Your task to perform on an android device: Search for asus zenbook on target, select the first entry, and add it to the cart. Image 0: 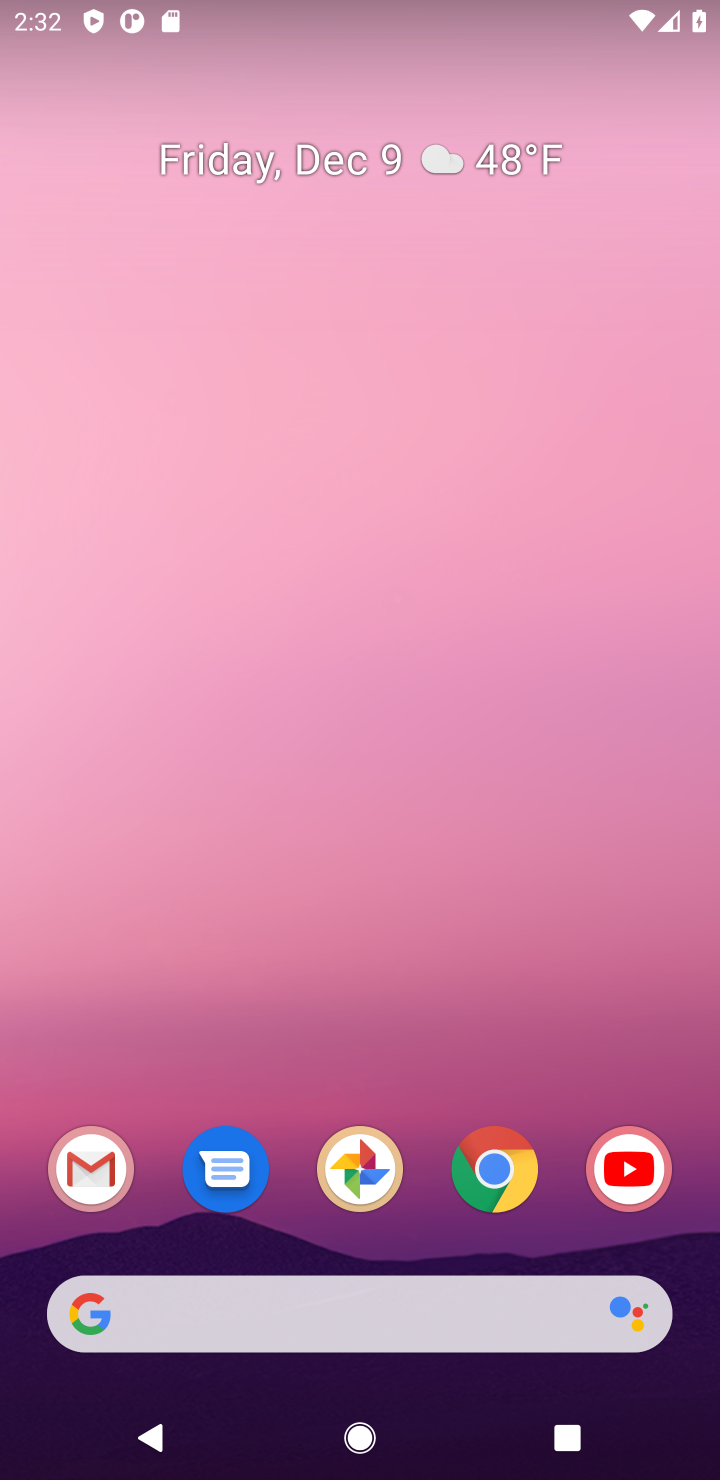
Step 0: click (496, 1176)
Your task to perform on an android device: Search for asus zenbook on target, select the first entry, and add it to the cart. Image 1: 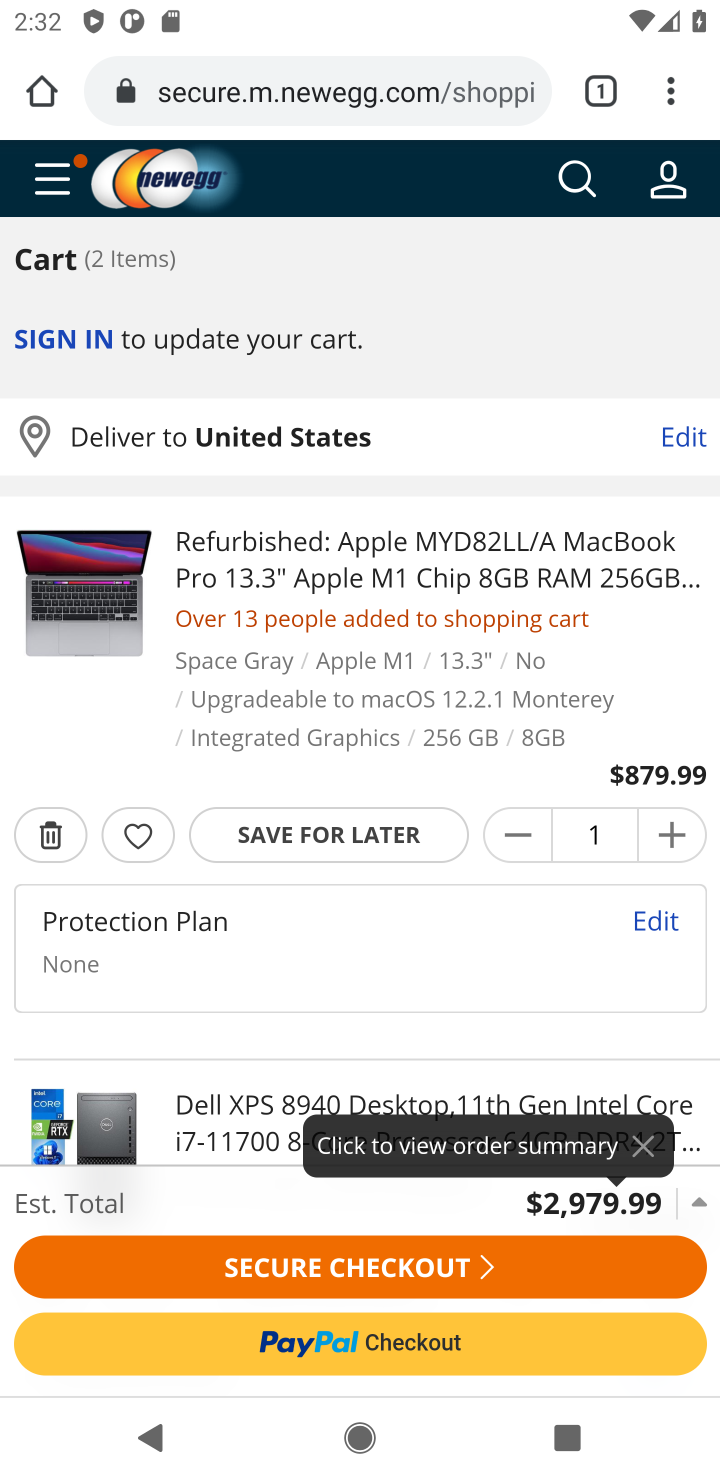
Step 1: click (44, 86)
Your task to perform on an android device: Search for asus zenbook on target, select the first entry, and add it to the cart. Image 2: 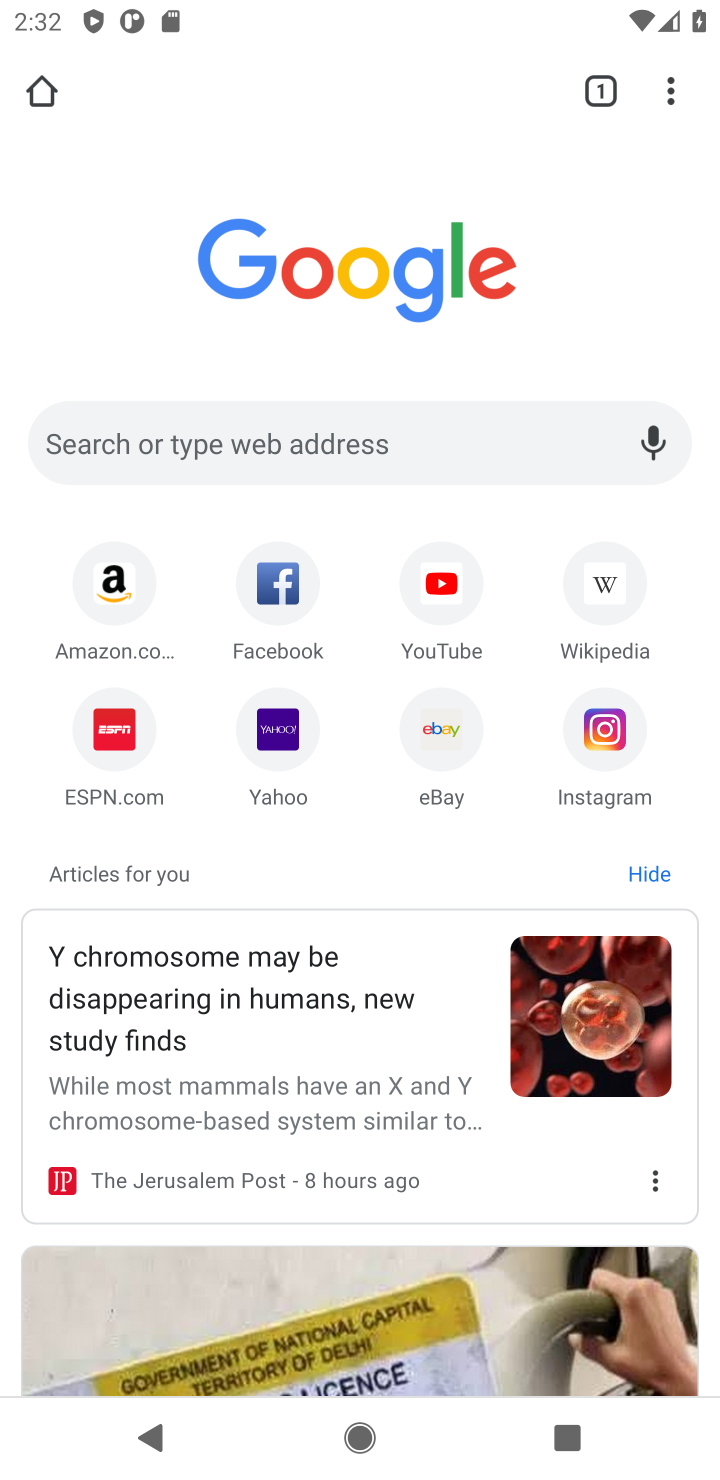
Step 2: click (531, 429)
Your task to perform on an android device: Search for asus zenbook on target, select the first entry, and add it to the cart. Image 3: 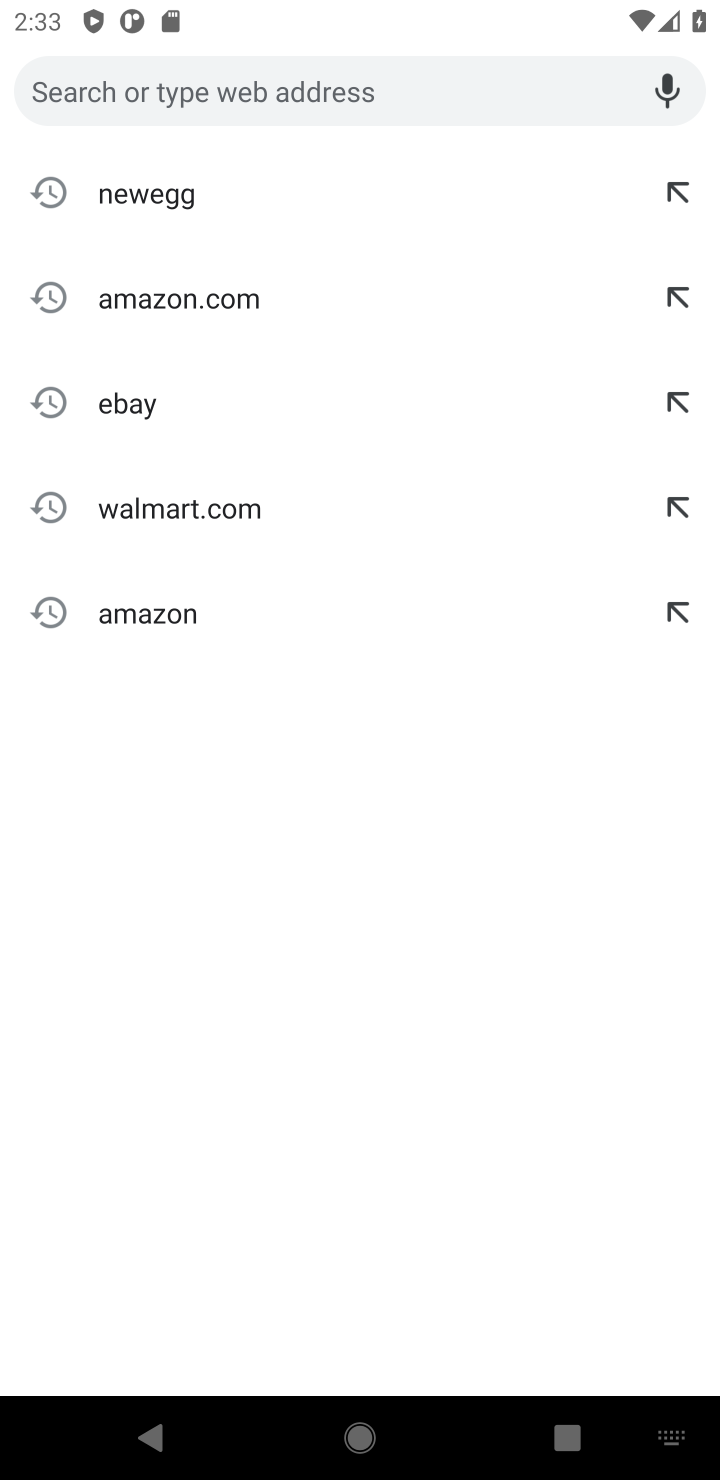
Step 3: press enter
Your task to perform on an android device: Search for asus zenbook on target, select the first entry, and add it to the cart. Image 4: 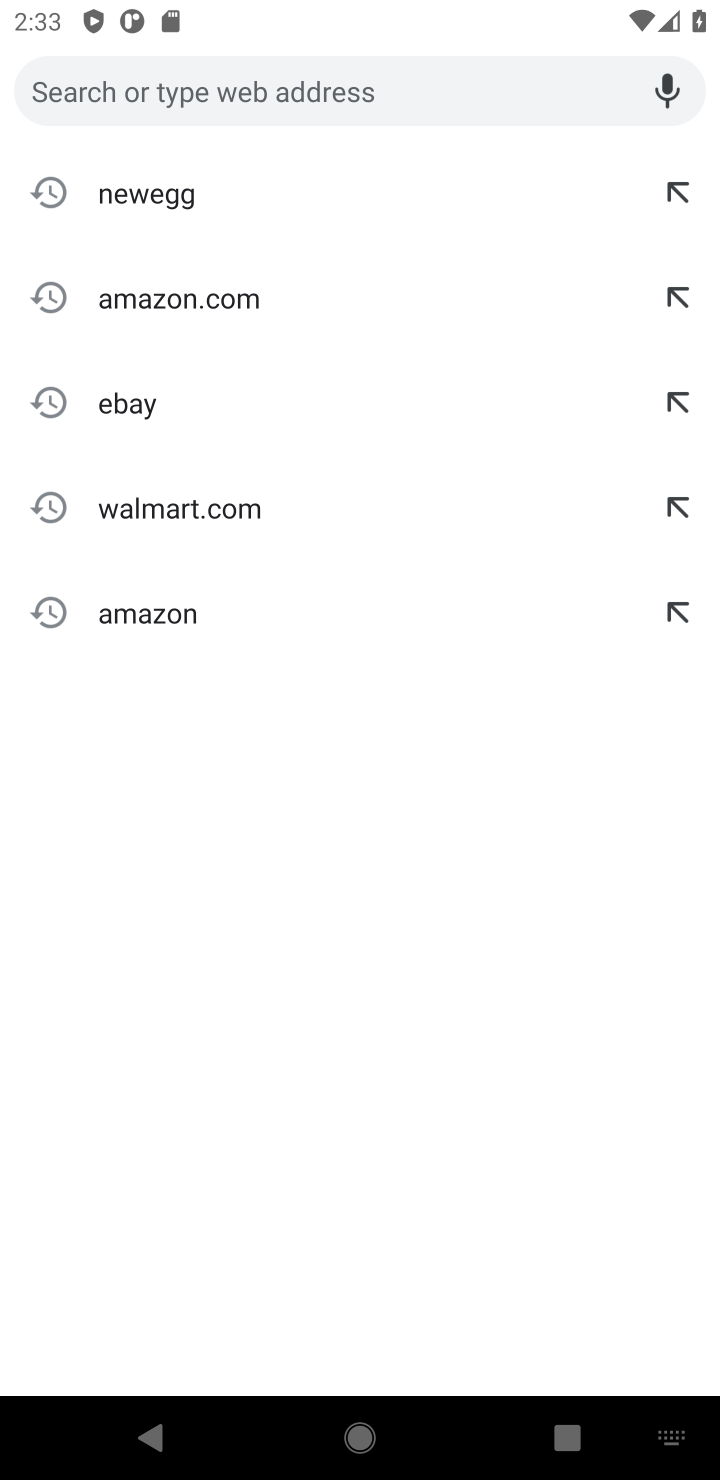
Step 4: type "target"
Your task to perform on an android device: Search for asus zenbook on target, select the first entry, and add it to the cart. Image 5: 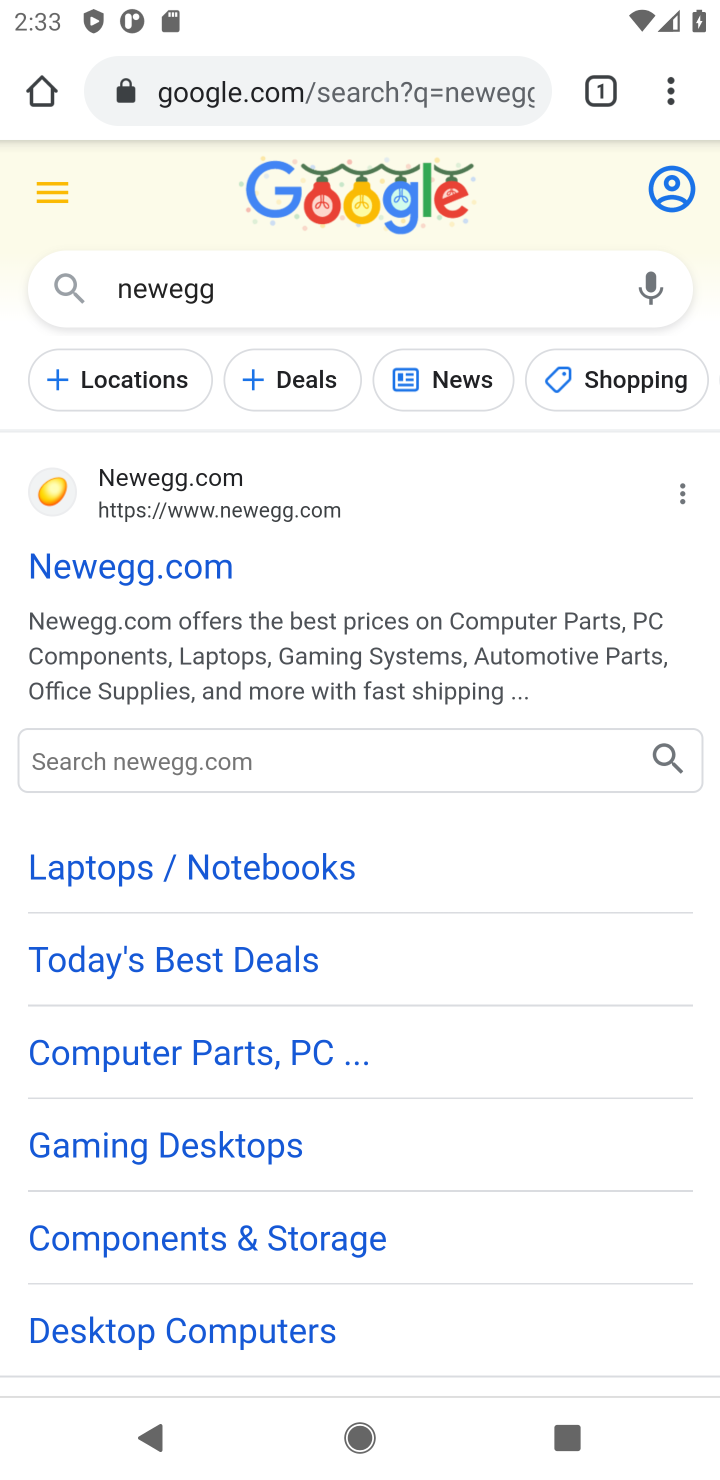
Step 5: click (392, 97)
Your task to perform on an android device: Search for asus zenbook on target, select the first entry, and add it to the cart. Image 6: 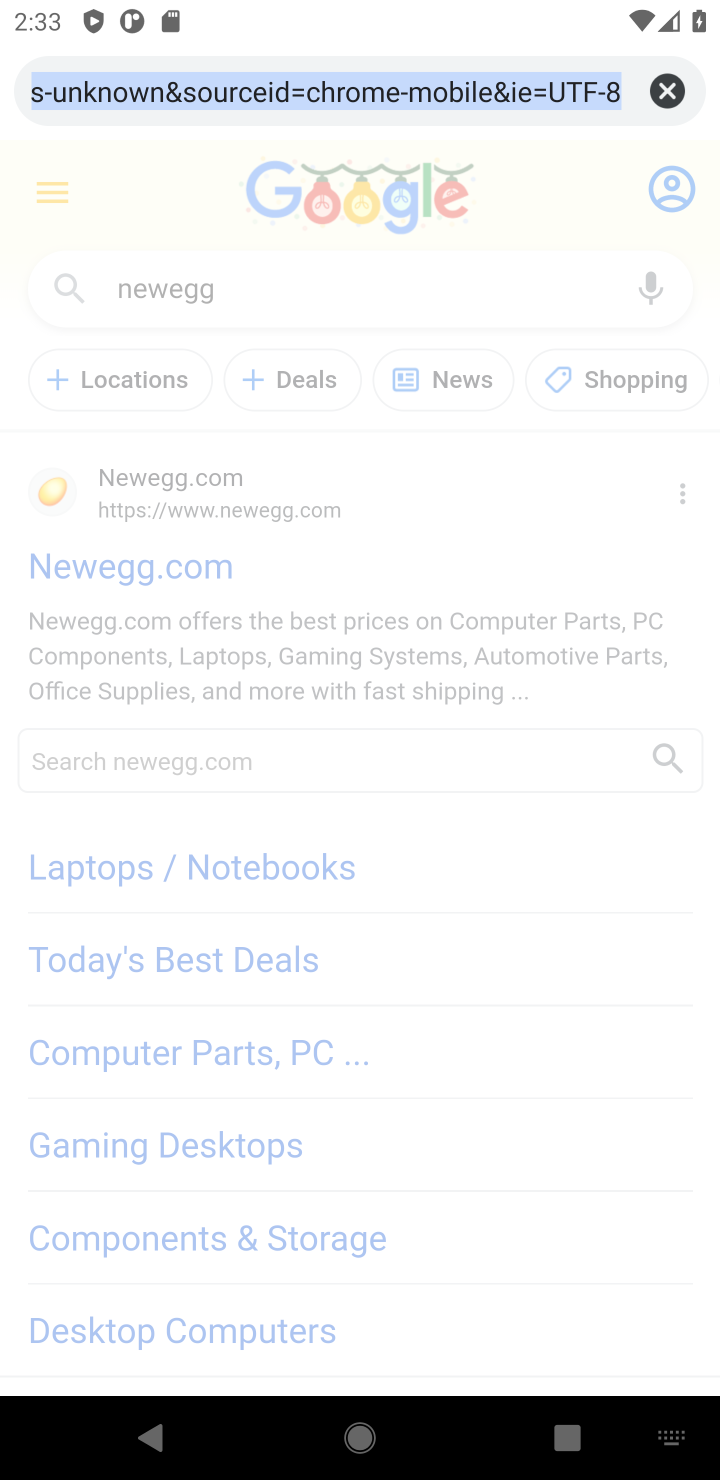
Step 6: click (670, 93)
Your task to perform on an android device: Search for asus zenbook on target, select the first entry, and add it to the cart. Image 7: 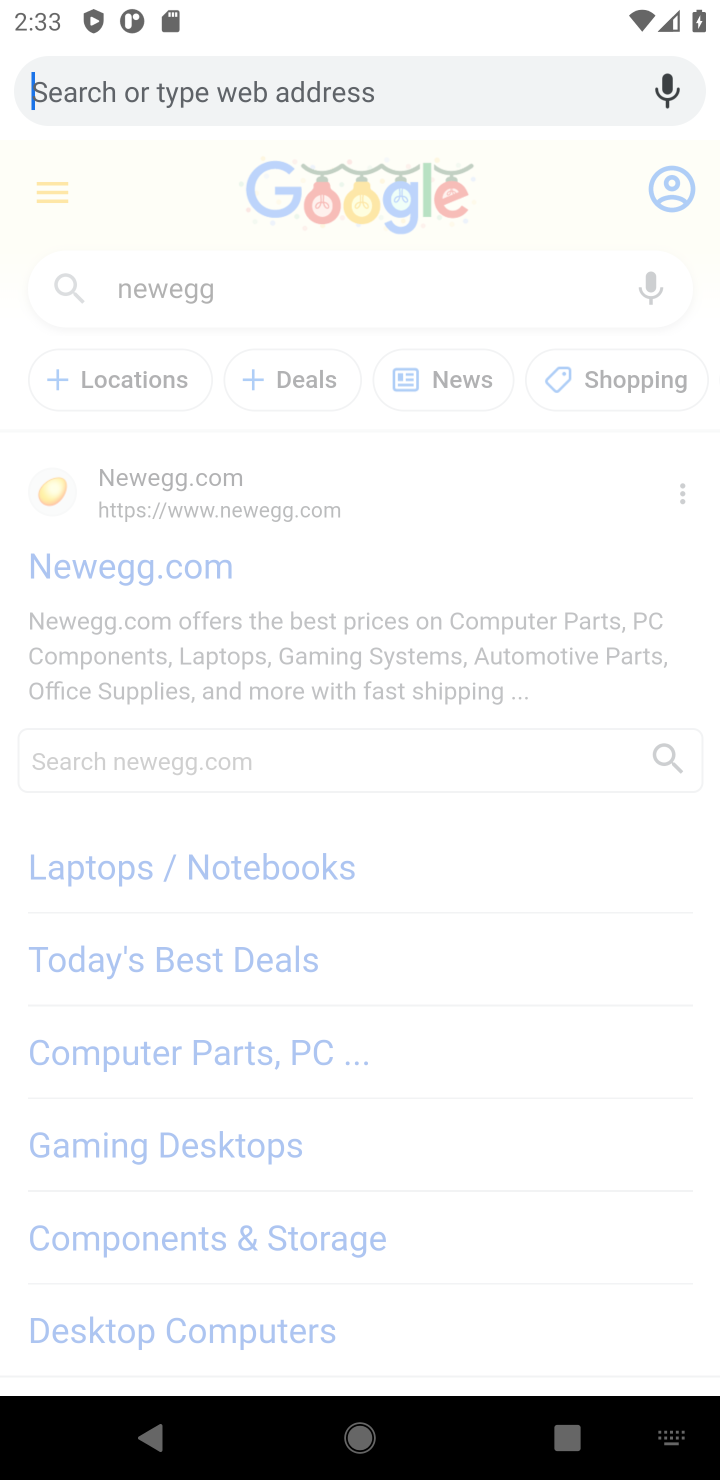
Step 7: press enter
Your task to perform on an android device: Search for asus zenbook on target, select the first entry, and add it to the cart. Image 8: 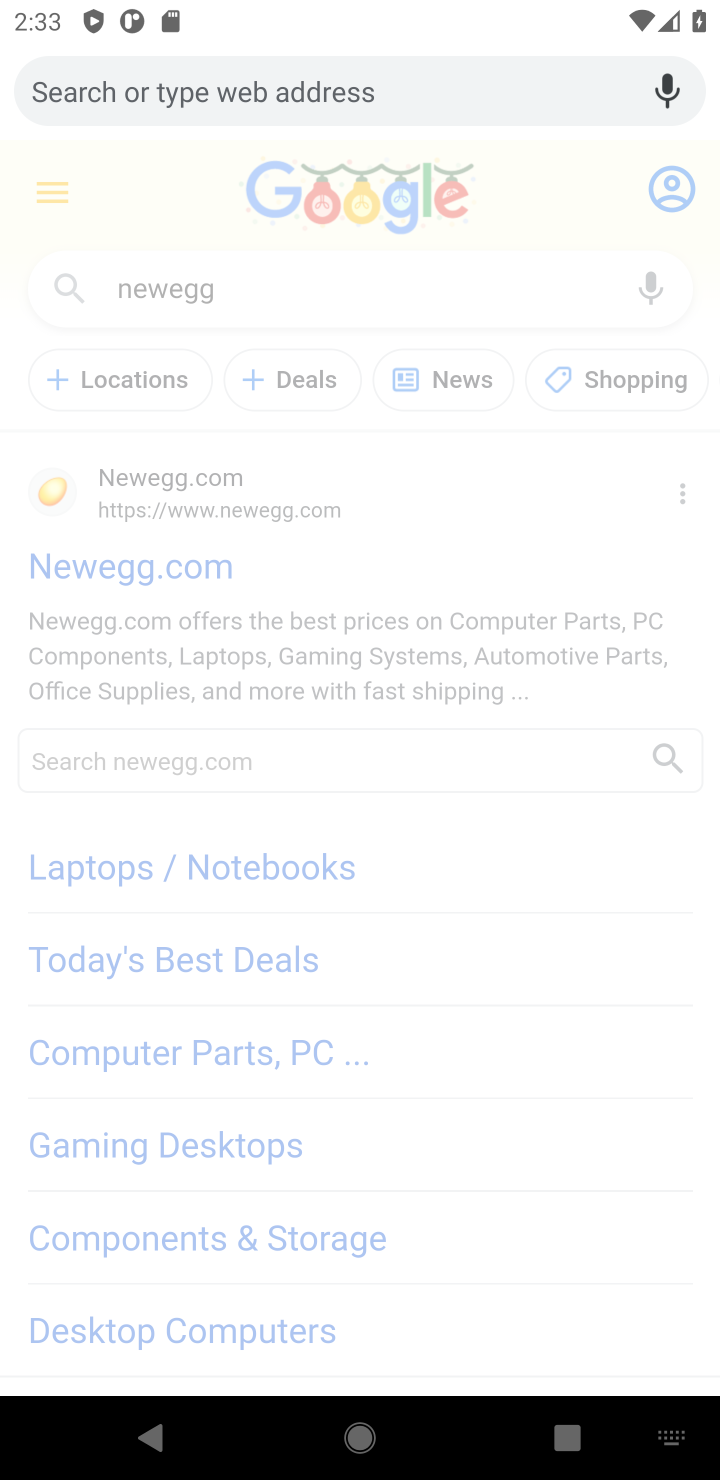
Step 8: type "target"
Your task to perform on an android device: Search for asus zenbook on target, select the first entry, and add it to the cart. Image 9: 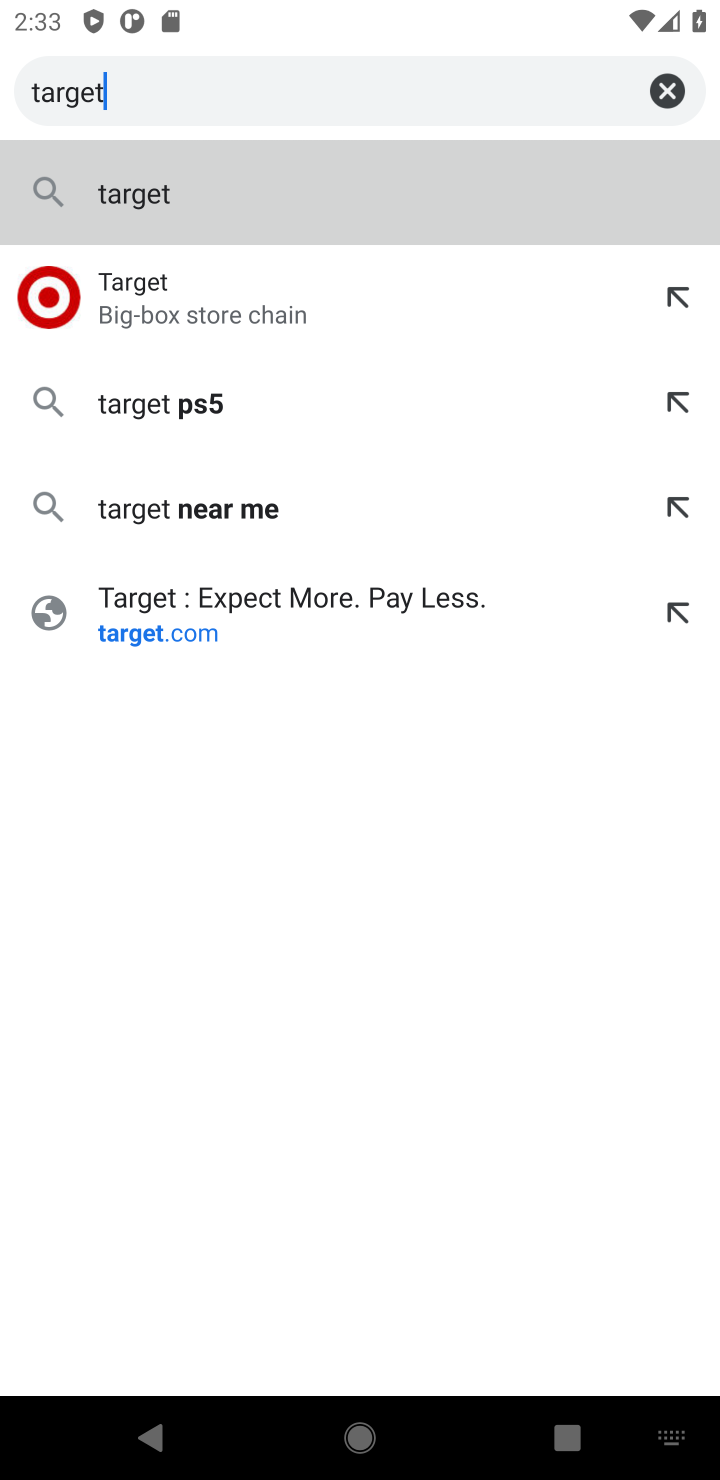
Step 9: click (235, 188)
Your task to perform on an android device: Search for asus zenbook on target, select the first entry, and add it to the cart. Image 10: 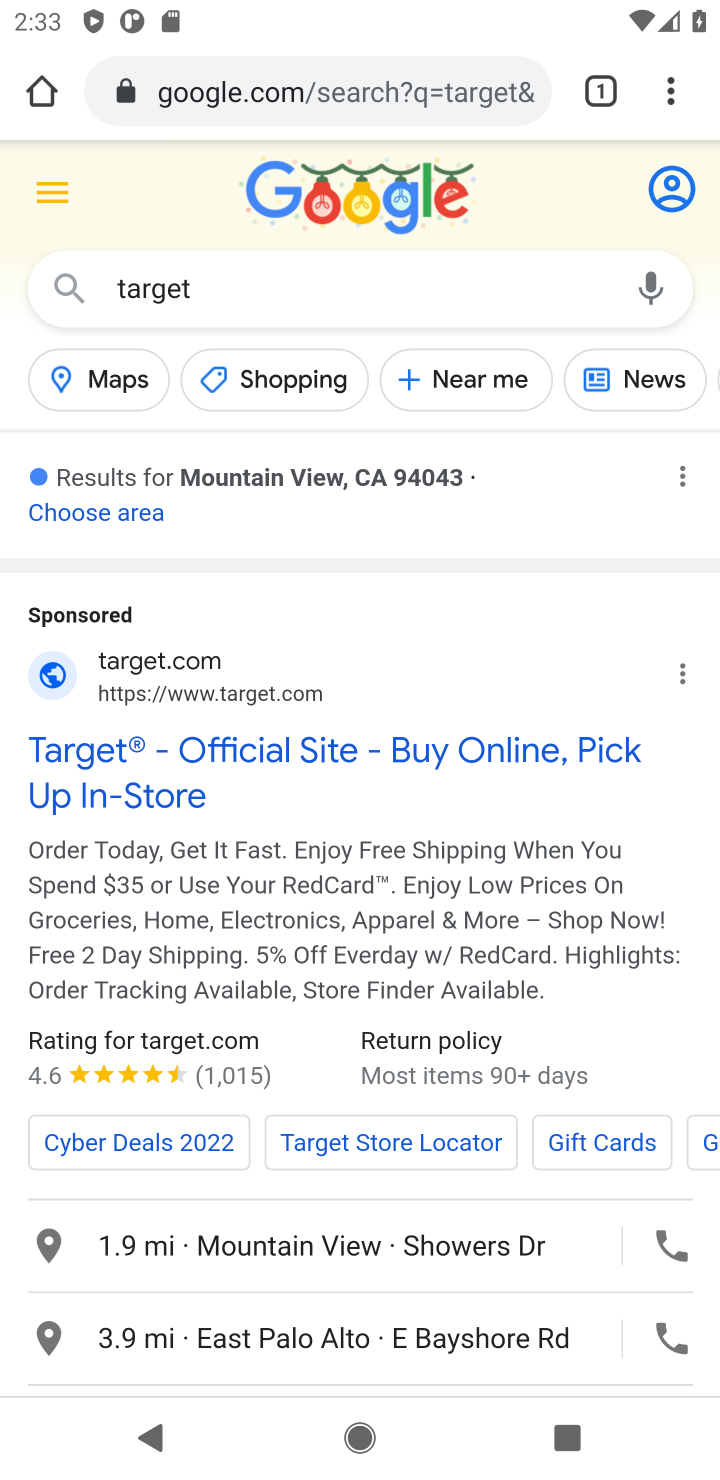
Step 10: click (180, 682)
Your task to perform on an android device: Search for asus zenbook on target, select the first entry, and add it to the cart. Image 11: 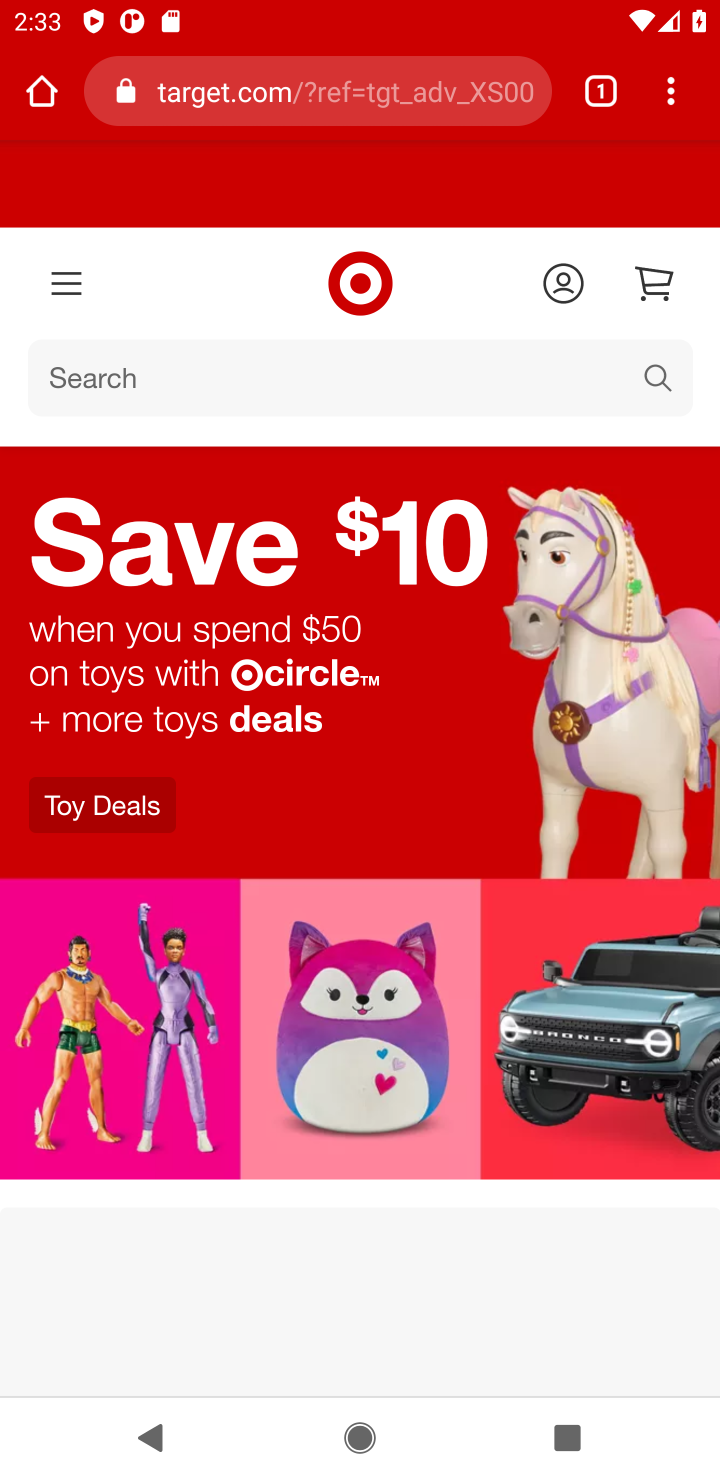
Step 11: click (655, 381)
Your task to perform on an android device: Search for asus zenbook on target, select the first entry, and add it to the cart. Image 12: 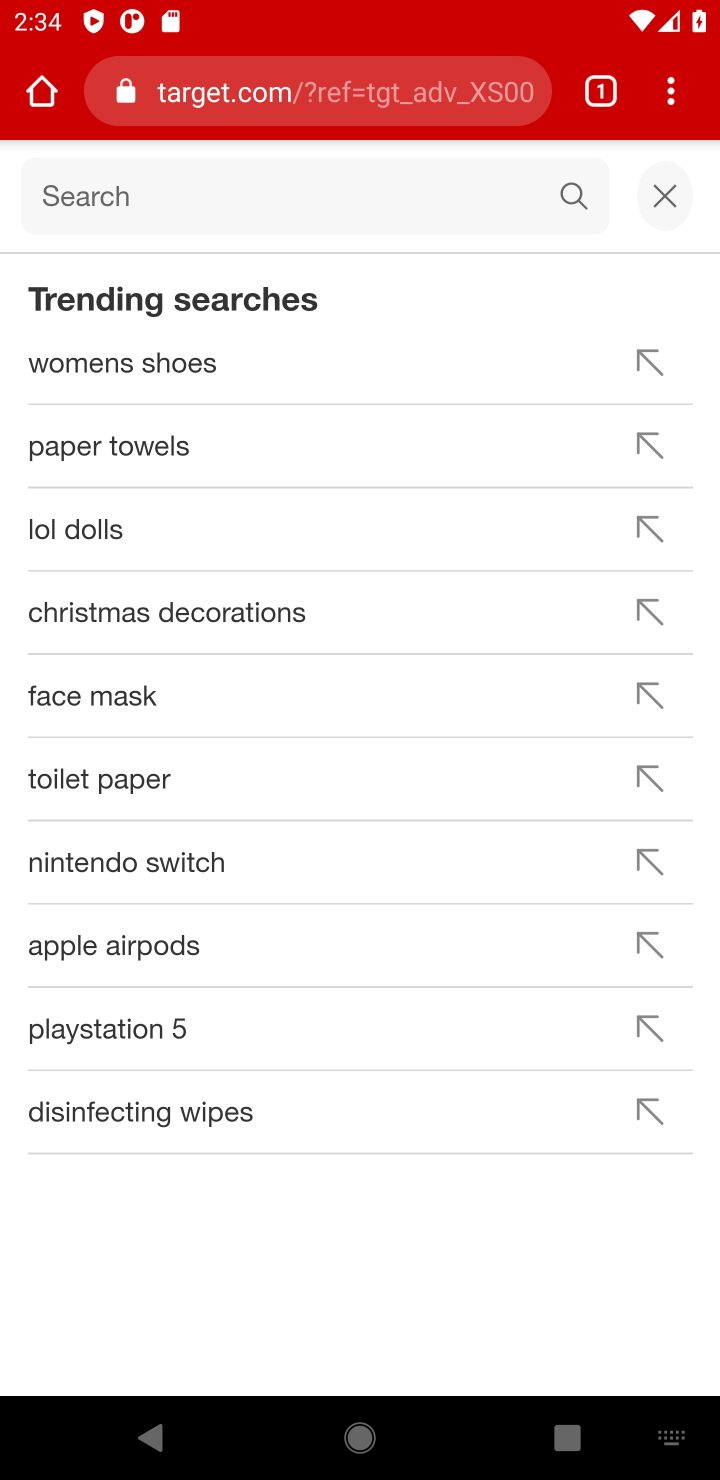
Step 12: press enter
Your task to perform on an android device: Search for asus zenbook on target, select the first entry, and add it to the cart. Image 13: 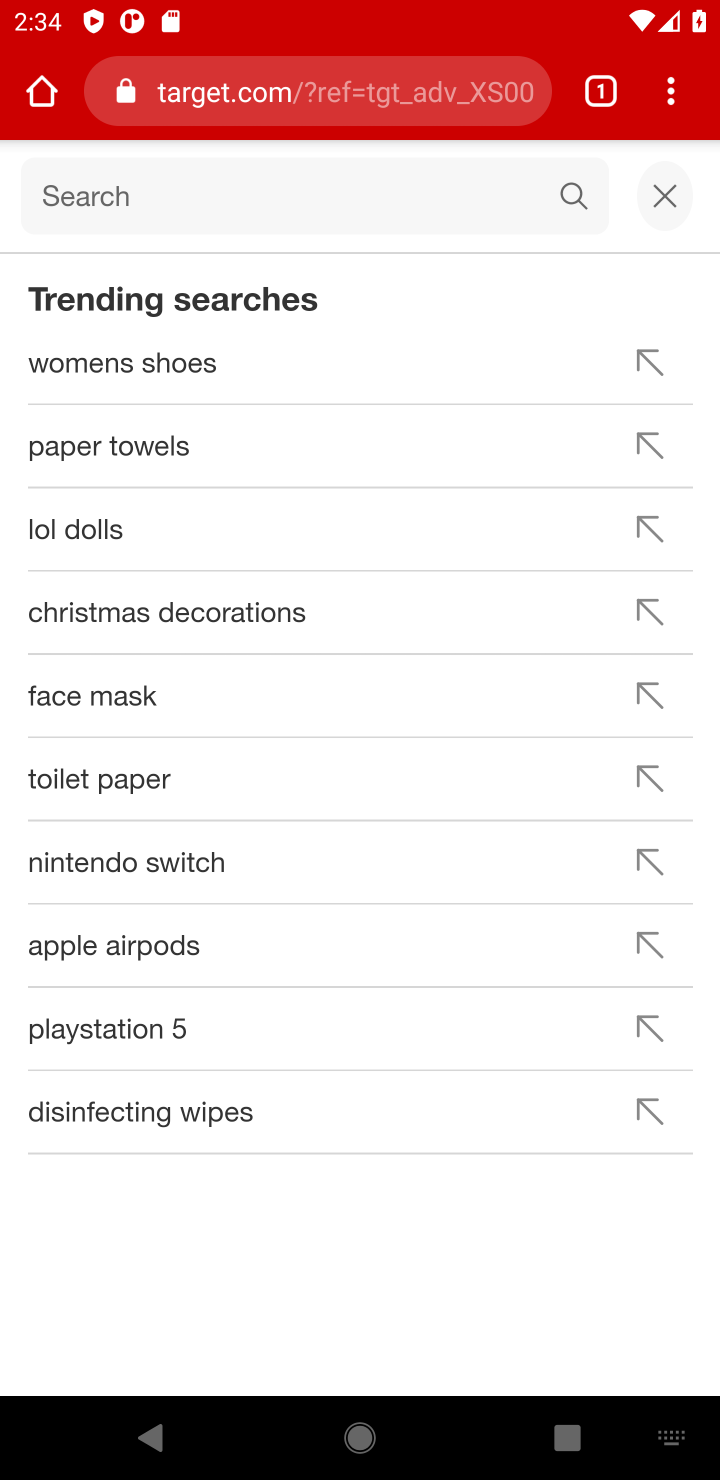
Step 13: type "asus zenbook"
Your task to perform on an android device: Search for asus zenbook on target, select the first entry, and add it to the cart. Image 14: 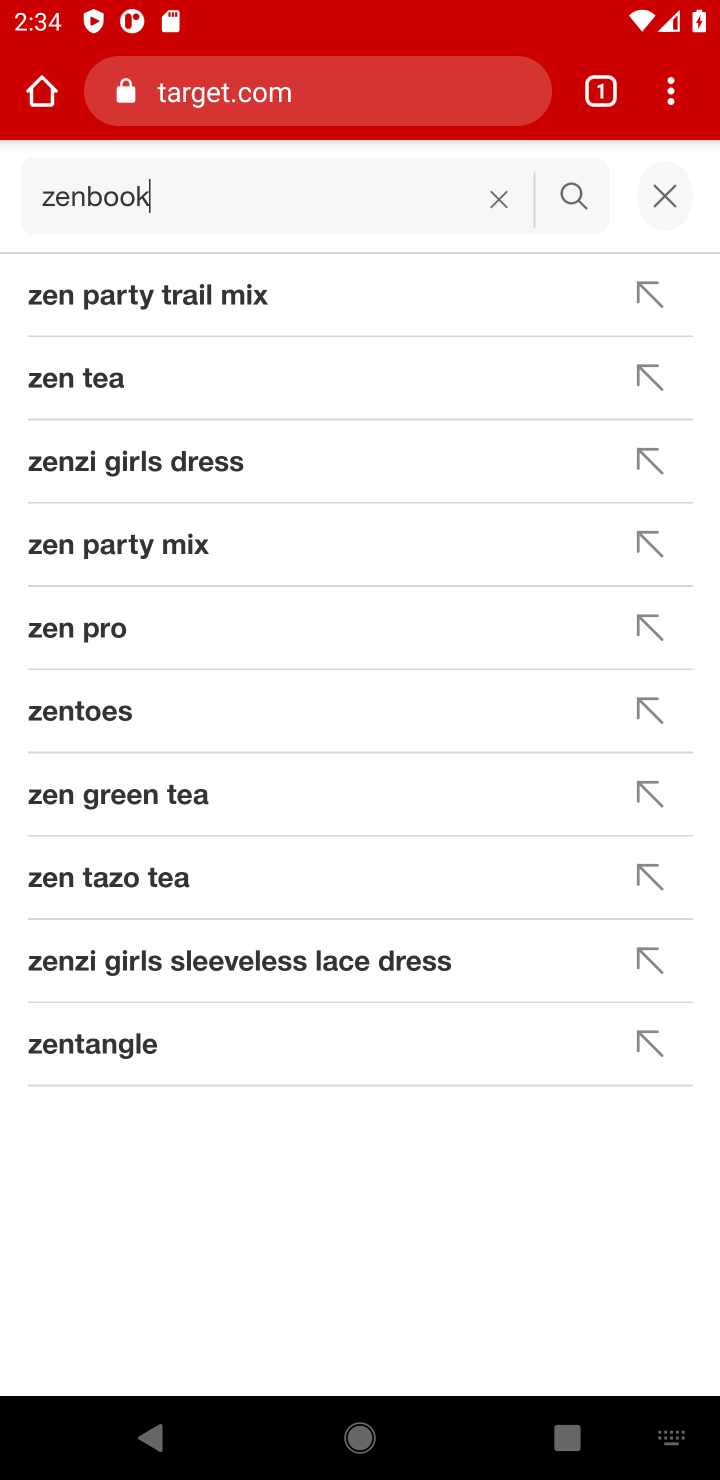
Step 14: click (86, 194)
Your task to perform on an android device: Search for asus zenbook on target, select the first entry, and add it to the cart. Image 15: 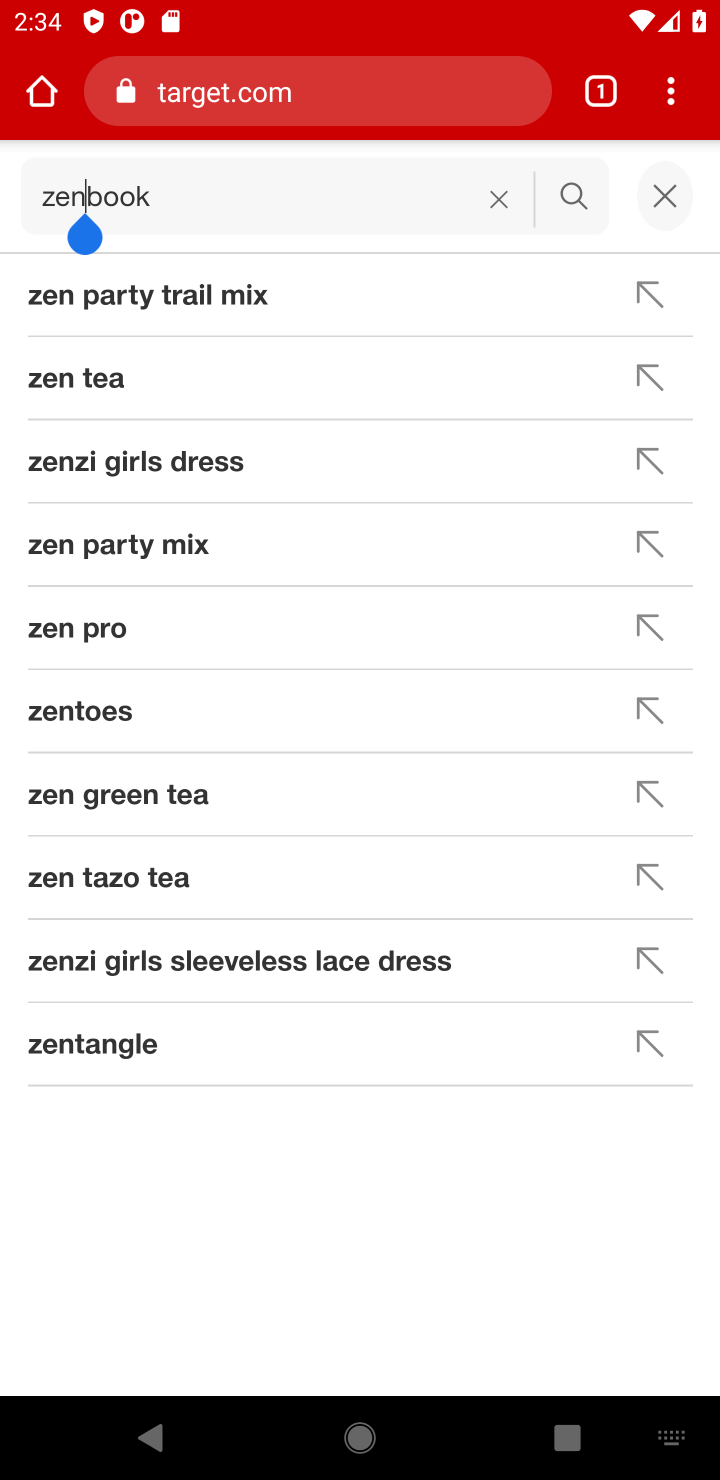
Step 15: click (89, 195)
Your task to perform on an android device: Search for asus zenbook on target, select the first entry, and add it to the cart. Image 16: 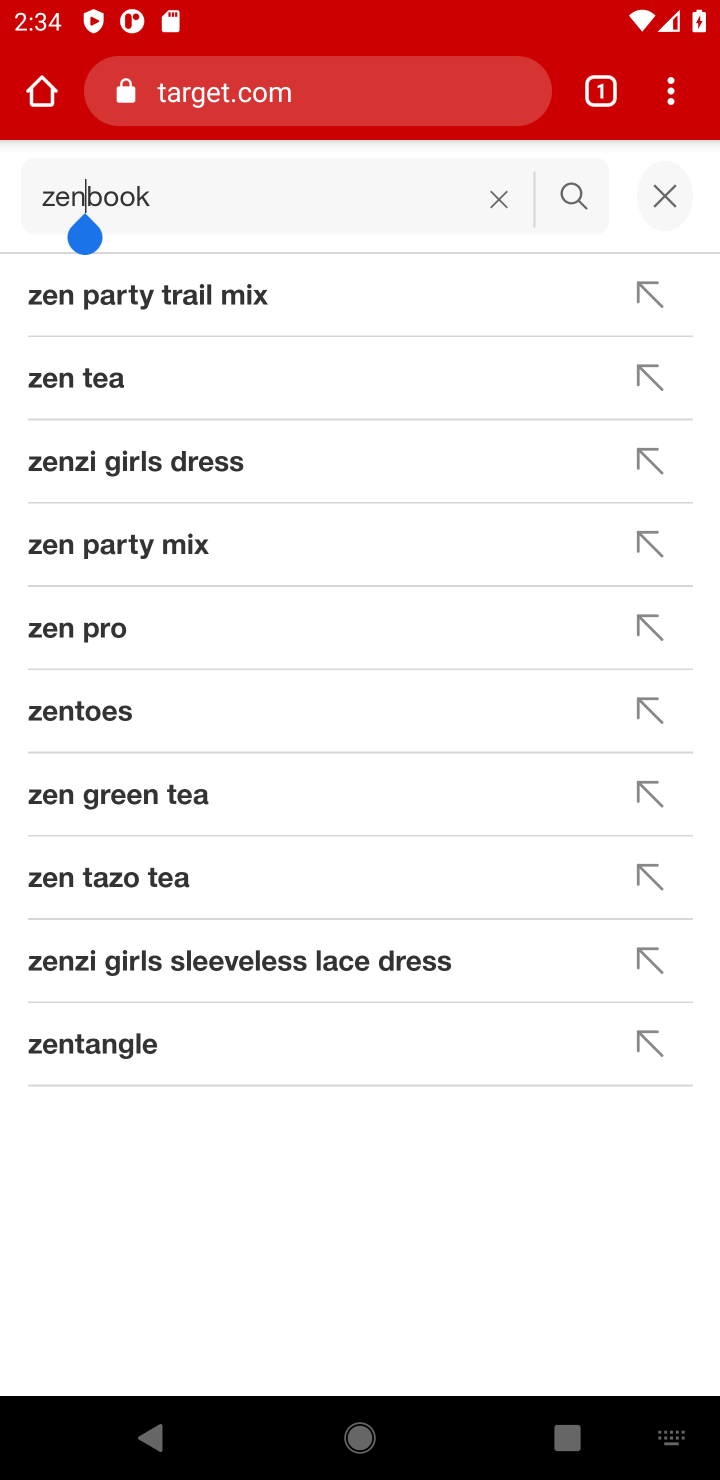
Step 16: click (89, 195)
Your task to perform on an android device: Search for asus zenbook on target, select the first entry, and add it to the cart. Image 17: 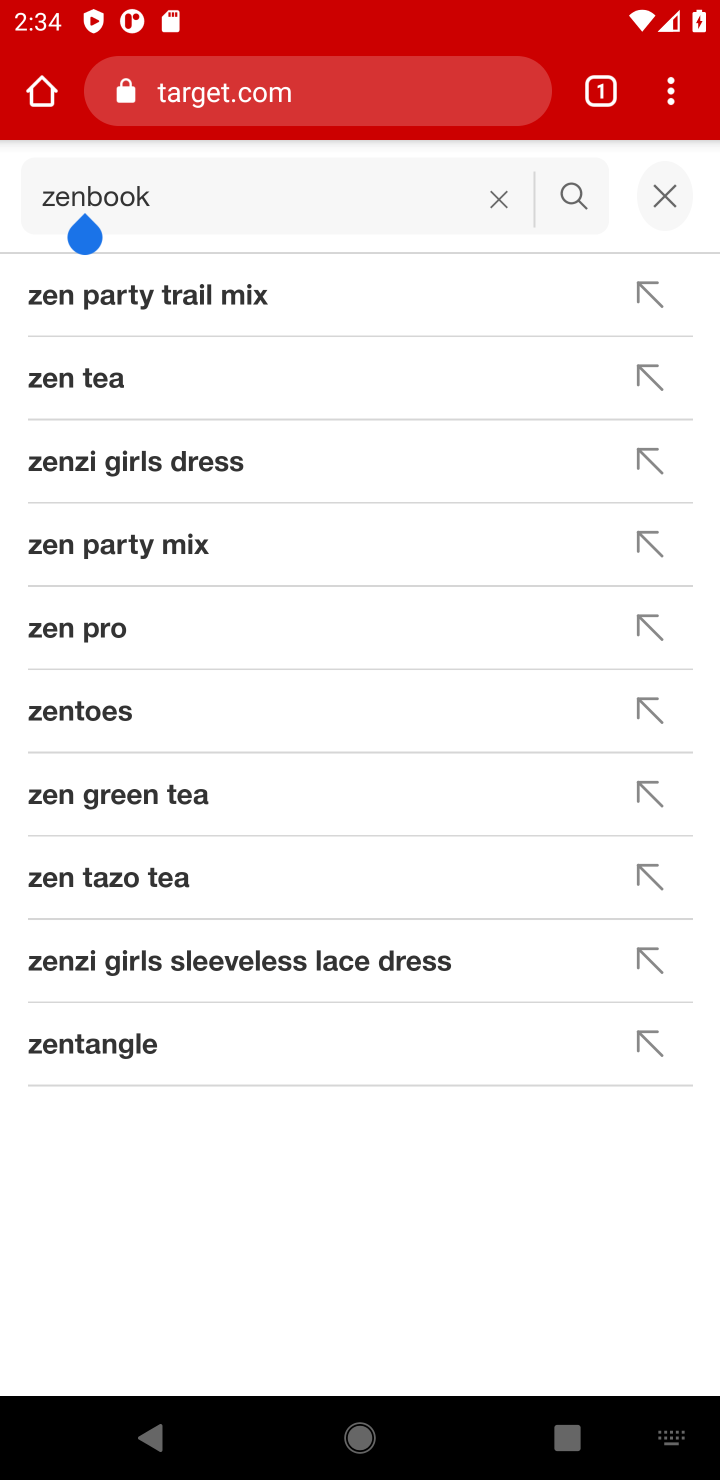
Step 17: click (89, 195)
Your task to perform on an android device: Search for asus zenbook on target, select the first entry, and add it to the cart. Image 18: 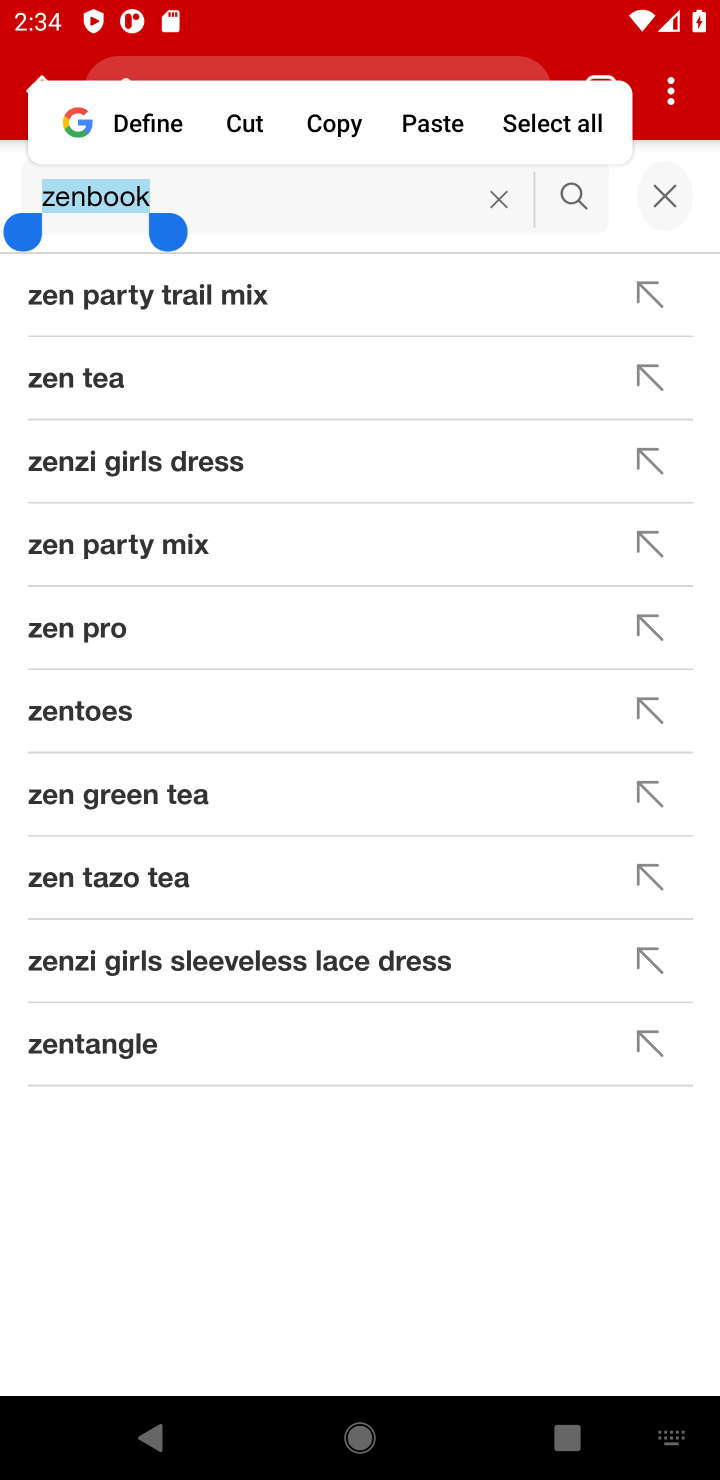
Step 18: press enter
Your task to perform on an android device: Search for asus zenbook on target, select the first entry, and add it to the cart. Image 19: 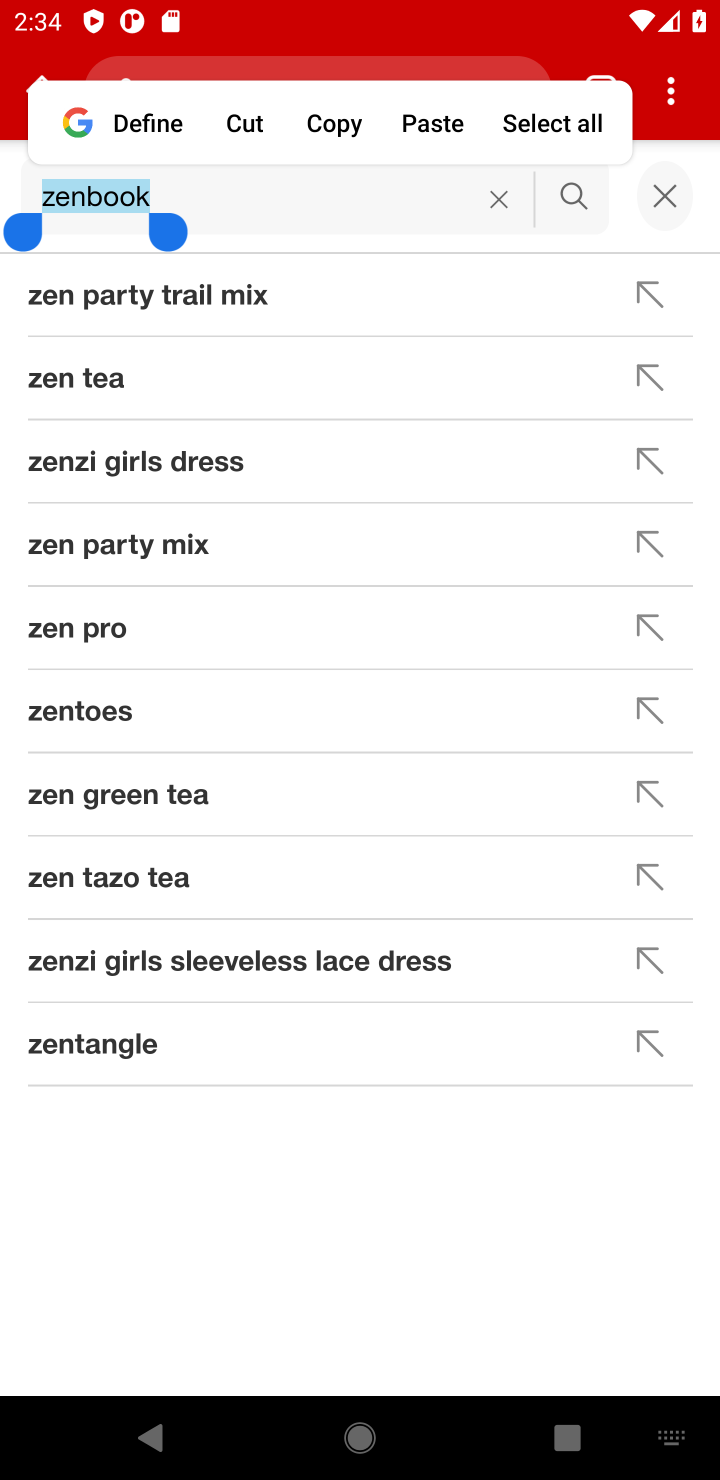
Step 19: type "asus zenbook"
Your task to perform on an android device: Search for asus zenbook on target, select the first entry, and add it to the cart. Image 20: 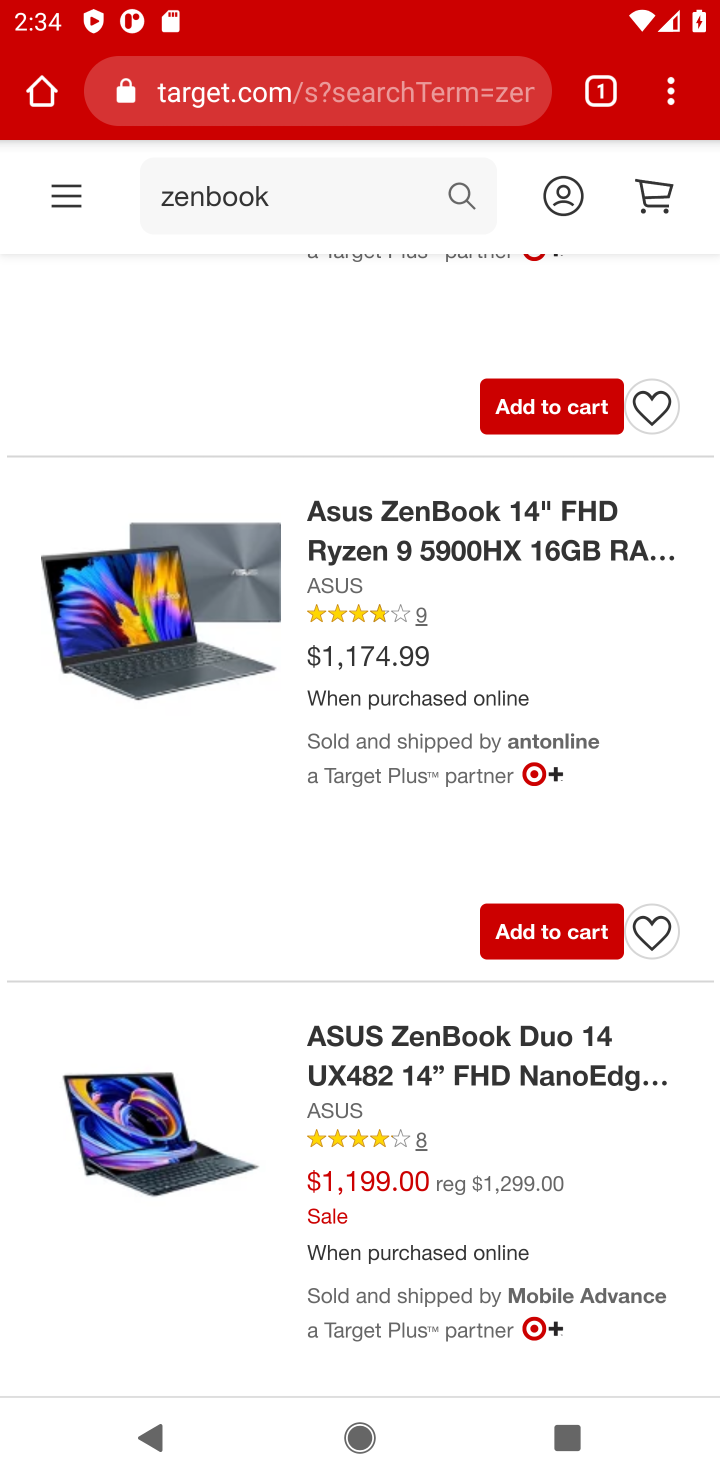
Step 20: click (118, 644)
Your task to perform on an android device: Search for asus zenbook on target, select the first entry, and add it to the cart. Image 21: 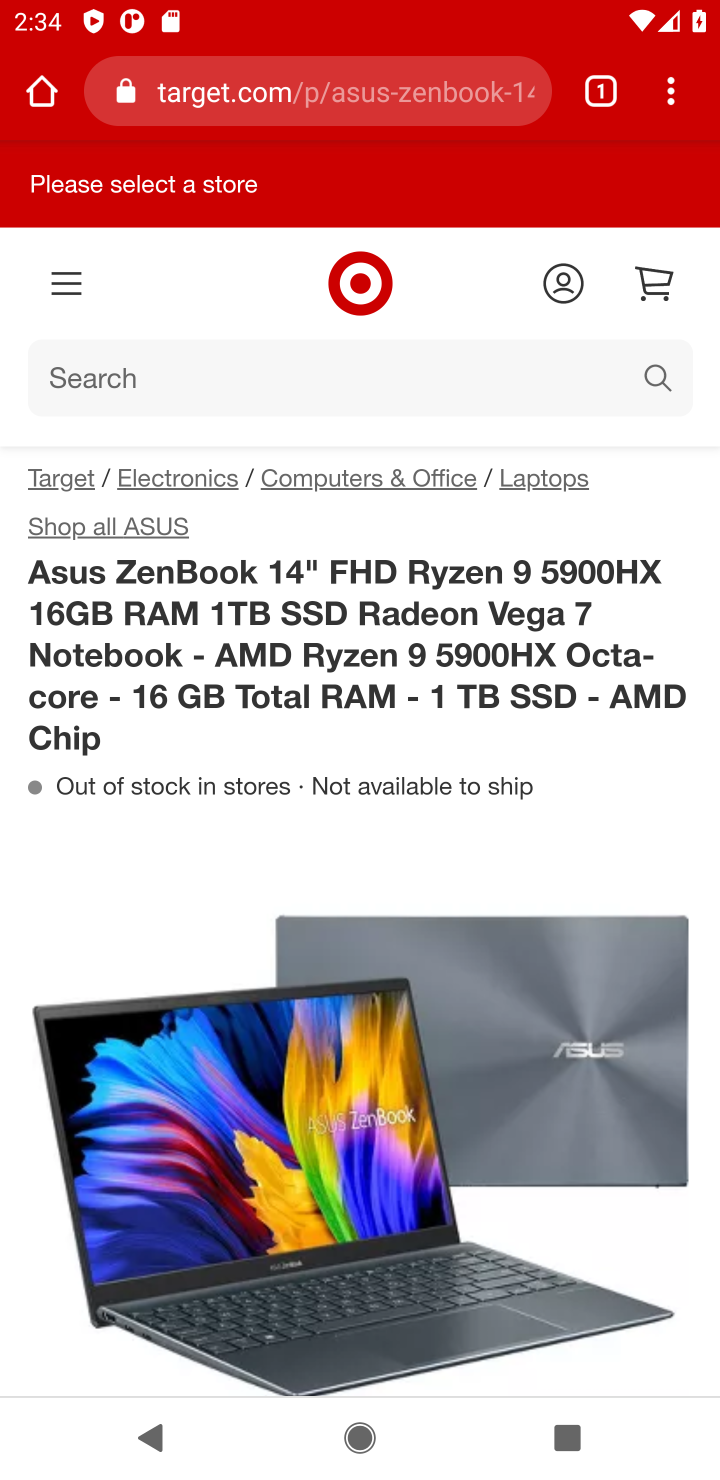
Step 21: drag from (571, 1075) to (661, 156)
Your task to perform on an android device: Search for asus zenbook on target, select the first entry, and add it to the cart. Image 22: 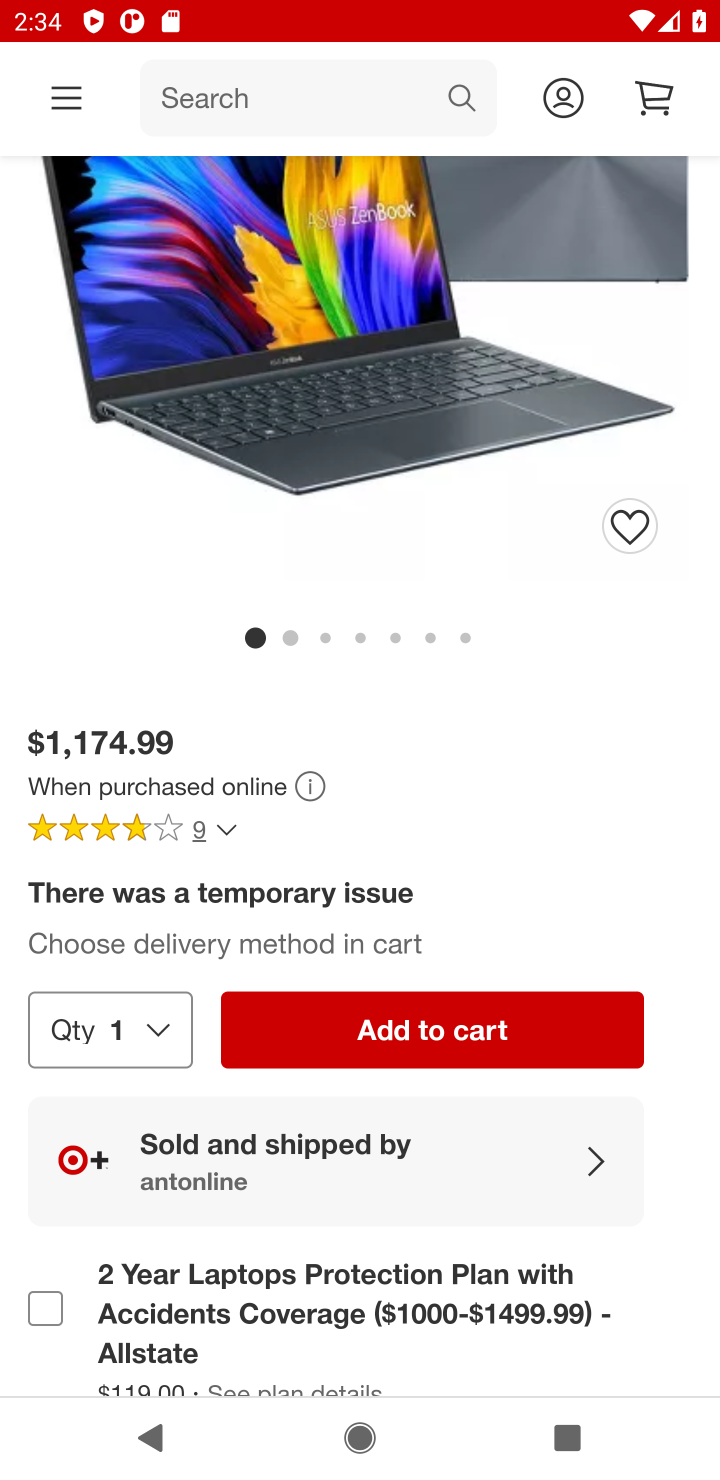
Step 22: click (443, 1029)
Your task to perform on an android device: Search for asus zenbook on target, select the first entry, and add it to the cart. Image 23: 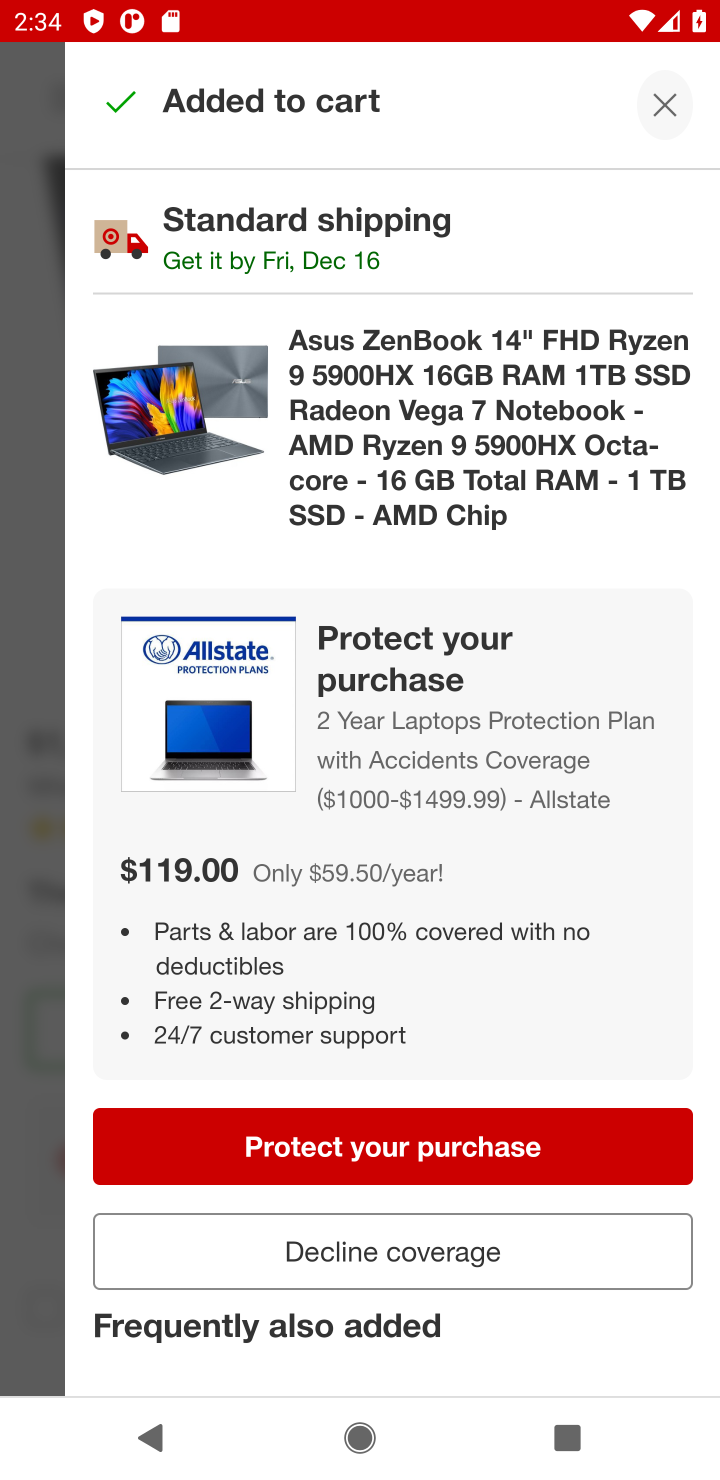
Step 23: task complete